Your task to perform on an android device: How much does a 3 bedroom apartment rent for in Denver? Image 0: 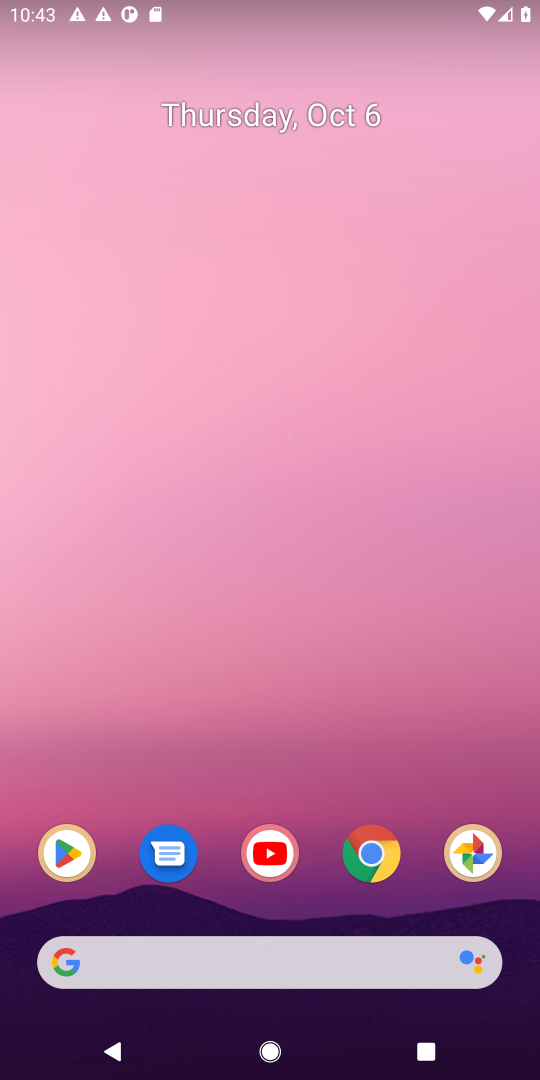
Step 0: click (204, 948)
Your task to perform on an android device: How much does a 3 bedroom apartment rent for in Denver? Image 1: 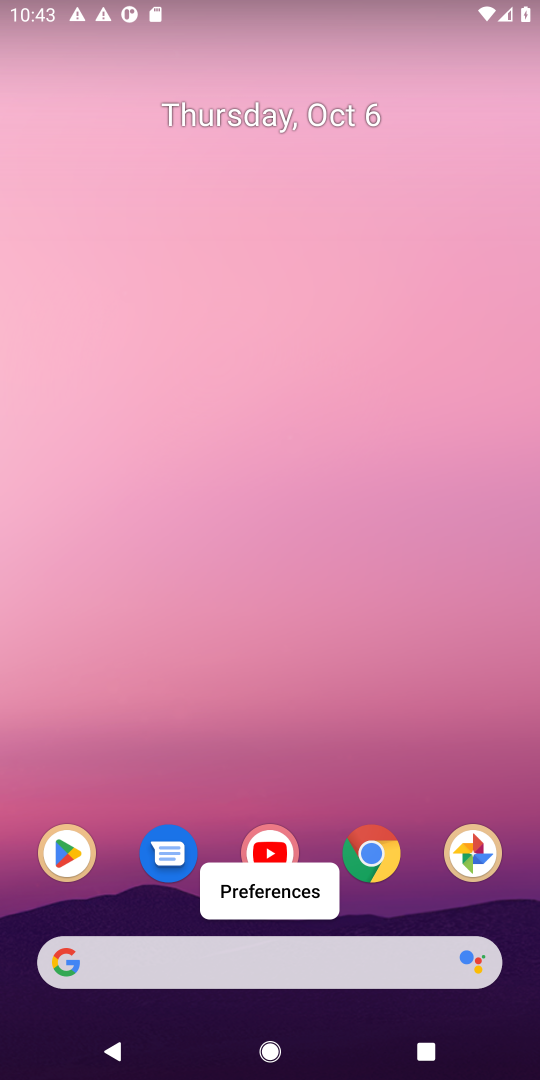
Step 1: click (235, 958)
Your task to perform on an android device: How much does a 3 bedroom apartment rent for in Denver? Image 2: 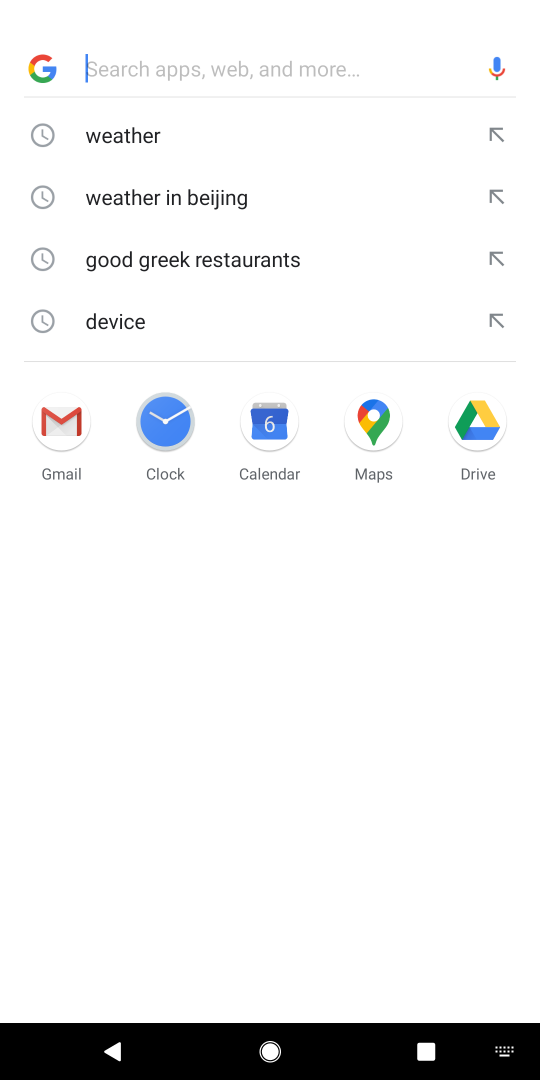
Step 2: type "how much does a 3 bedroom apartment for in denver"
Your task to perform on an android device: How much does a 3 bedroom apartment rent for in Denver? Image 3: 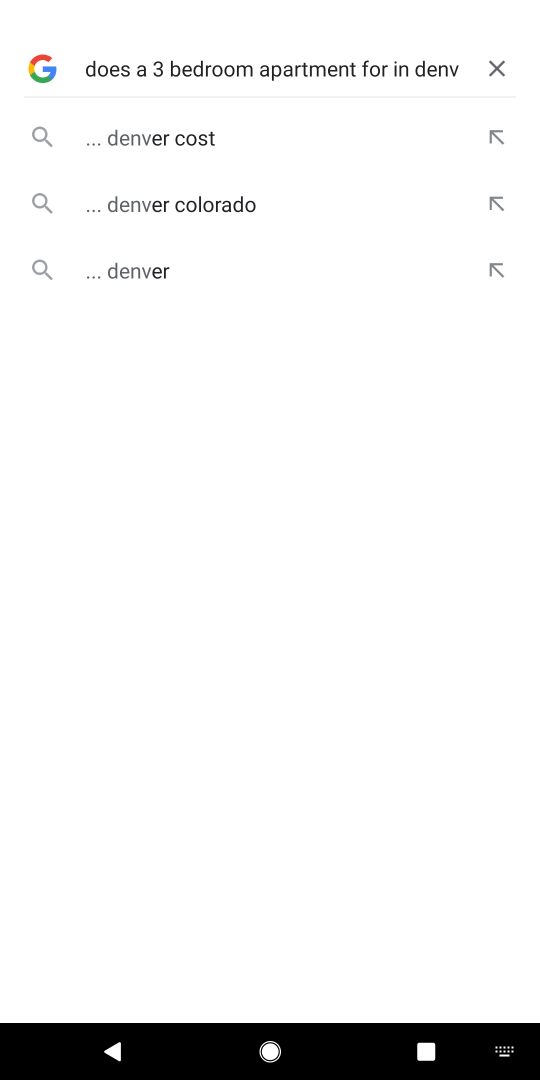
Step 3: click (462, 76)
Your task to perform on an android device: How much does a 3 bedroom apartment rent for in Denver? Image 4: 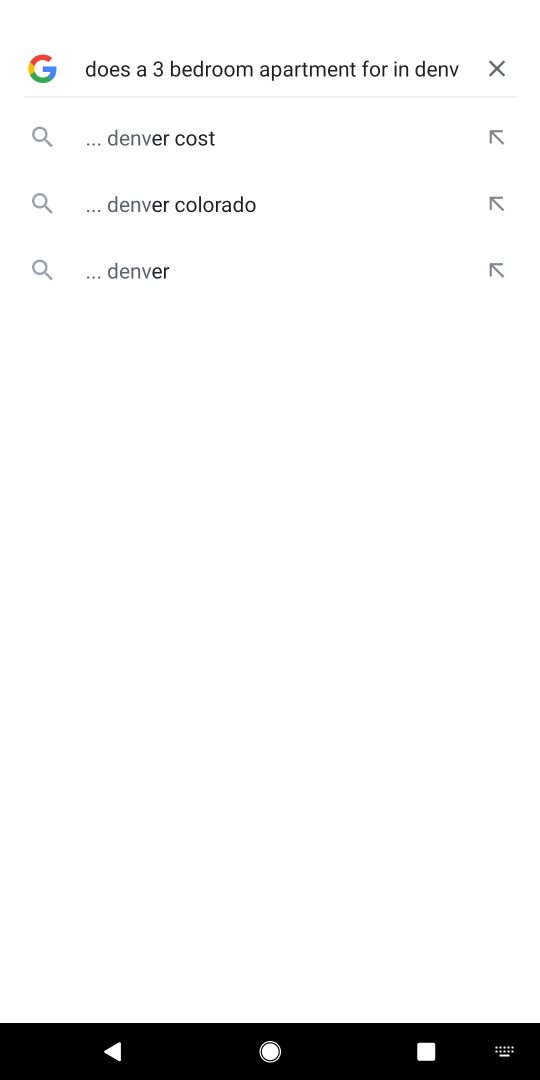
Step 4: press enter
Your task to perform on an android device: How much does a 3 bedroom apartment rent for in Denver? Image 5: 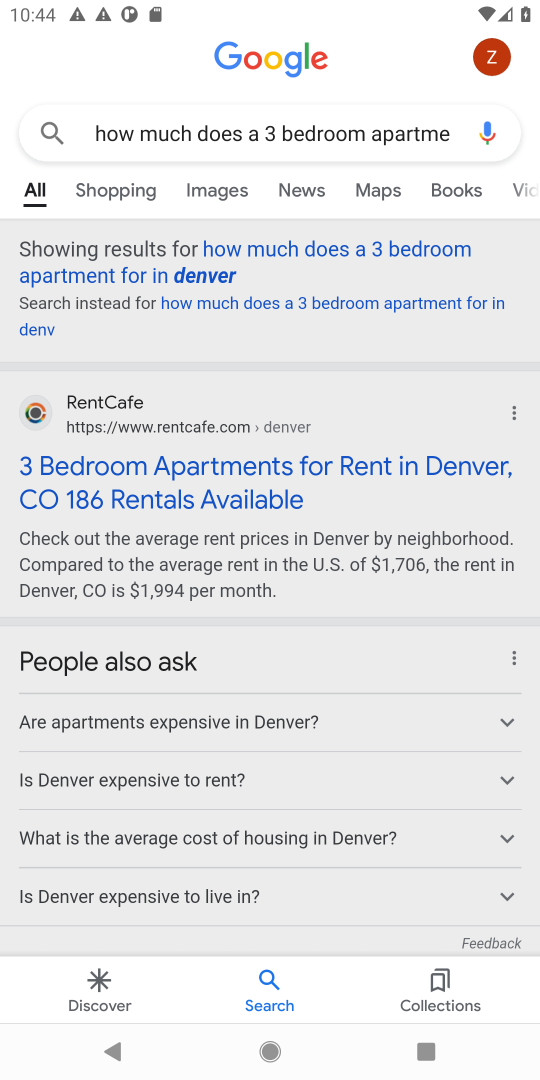
Step 5: click (214, 502)
Your task to perform on an android device: How much does a 3 bedroom apartment rent for in Denver? Image 6: 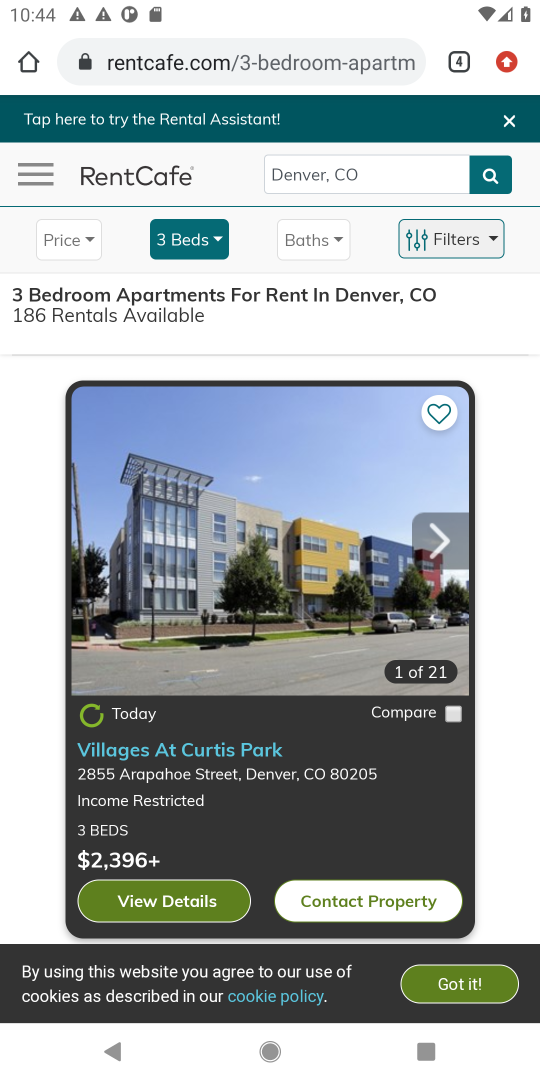
Step 6: task complete